Your task to perform on an android device: open a new tab in the chrome app Image 0: 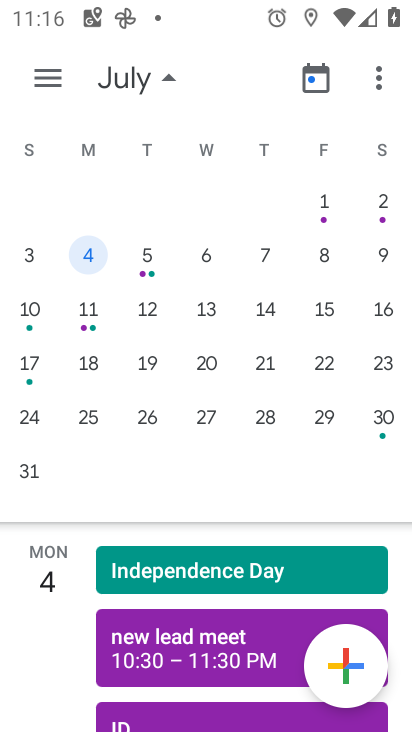
Step 0: press home button
Your task to perform on an android device: open a new tab in the chrome app Image 1: 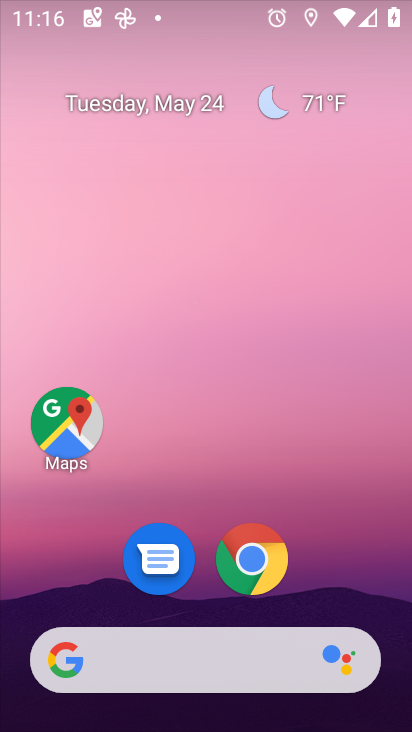
Step 1: drag from (374, 549) to (184, 34)
Your task to perform on an android device: open a new tab in the chrome app Image 2: 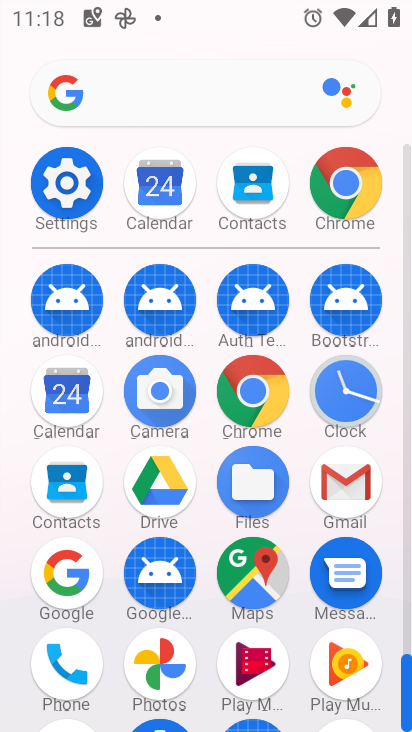
Step 2: click (260, 412)
Your task to perform on an android device: open a new tab in the chrome app Image 3: 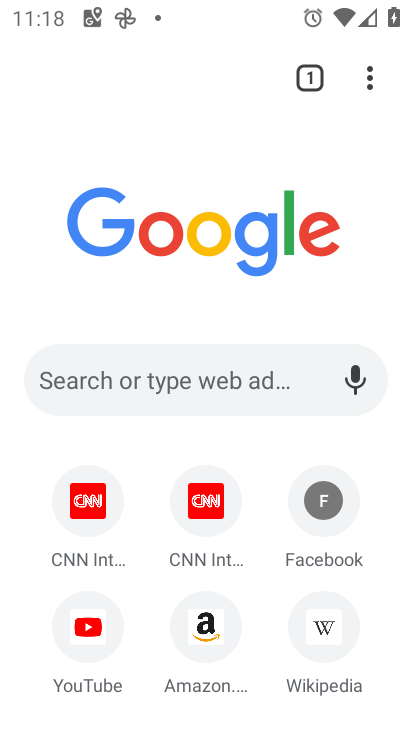
Step 3: click (370, 76)
Your task to perform on an android device: open a new tab in the chrome app Image 4: 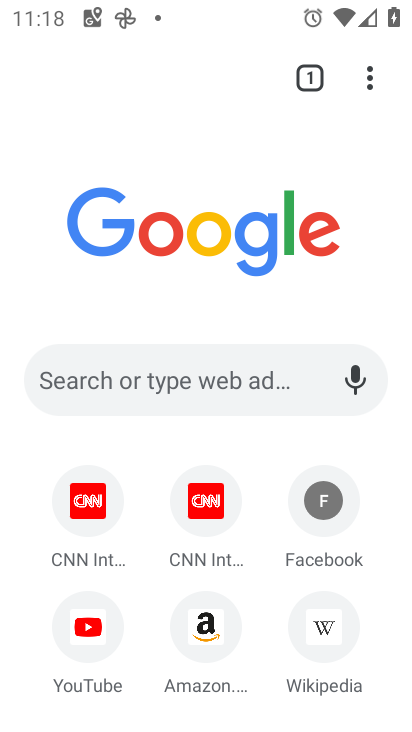
Step 4: click (375, 72)
Your task to perform on an android device: open a new tab in the chrome app Image 5: 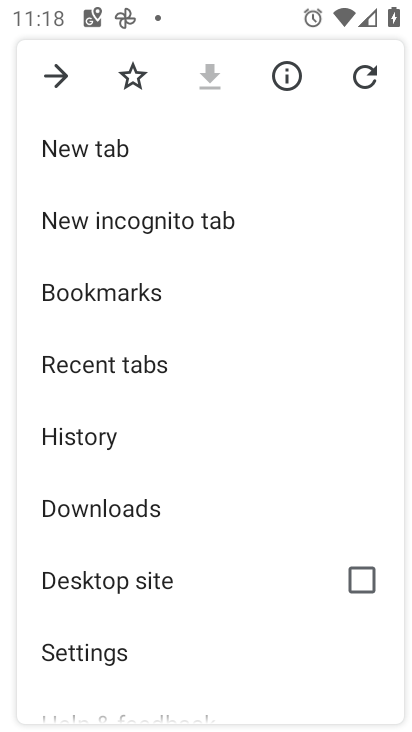
Step 5: click (145, 152)
Your task to perform on an android device: open a new tab in the chrome app Image 6: 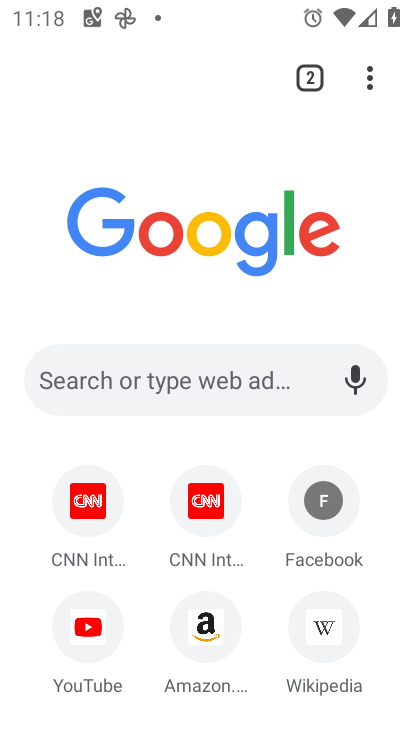
Step 6: task complete